Your task to perform on an android device: Do I have any events today? Image 0: 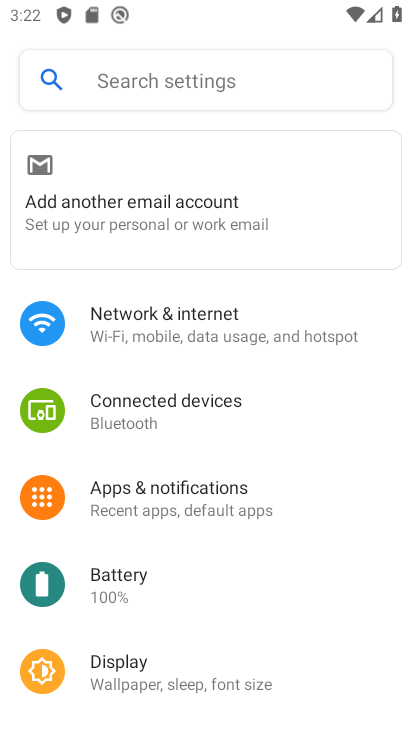
Step 0: press back button
Your task to perform on an android device: Do I have any events today? Image 1: 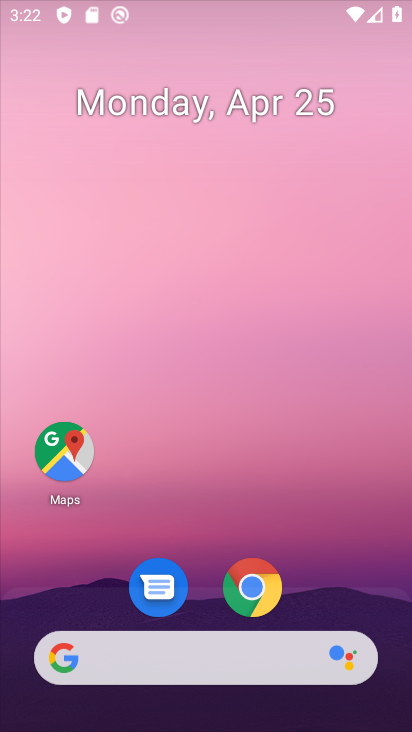
Step 1: drag from (148, 647) to (267, 22)
Your task to perform on an android device: Do I have any events today? Image 2: 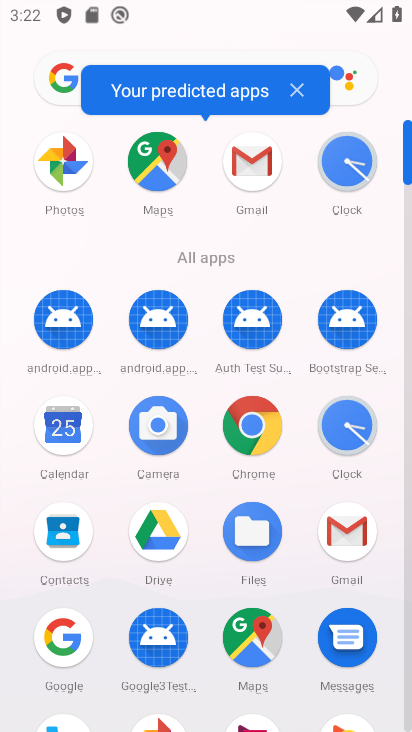
Step 2: click (53, 449)
Your task to perform on an android device: Do I have any events today? Image 3: 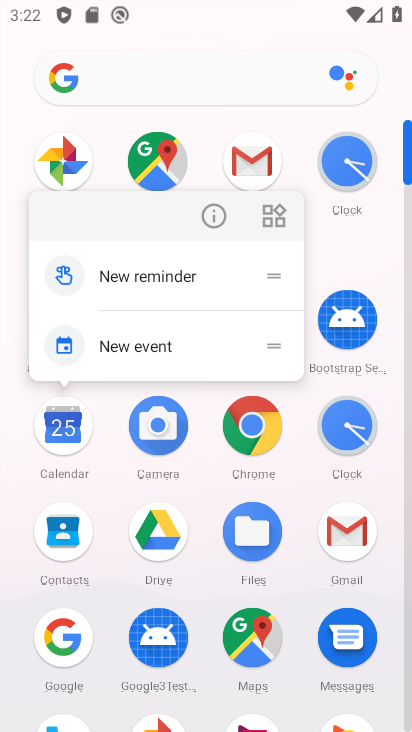
Step 3: click (58, 434)
Your task to perform on an android device: Do I have any events today? Image 4: 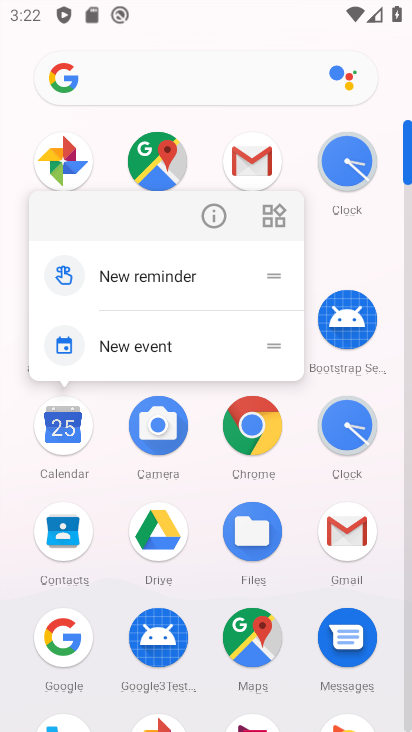
Step 4: click (63, 431)
Your task to perform on an android device: Do I have any events today? Image 5: 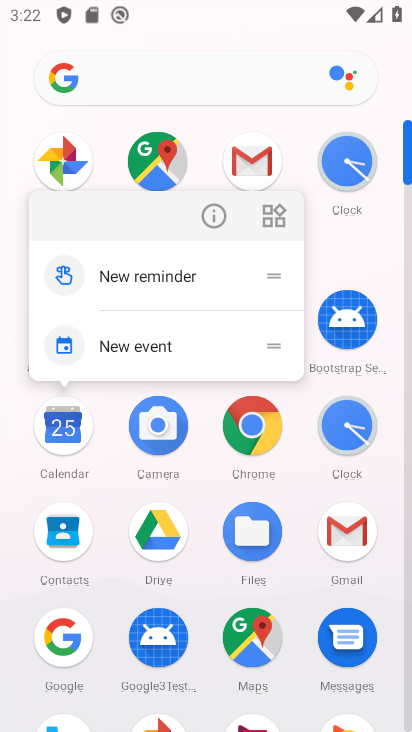
Step 5: click (63, 431)
Your task to perform on an android device: Do I have any events today? Image 6: 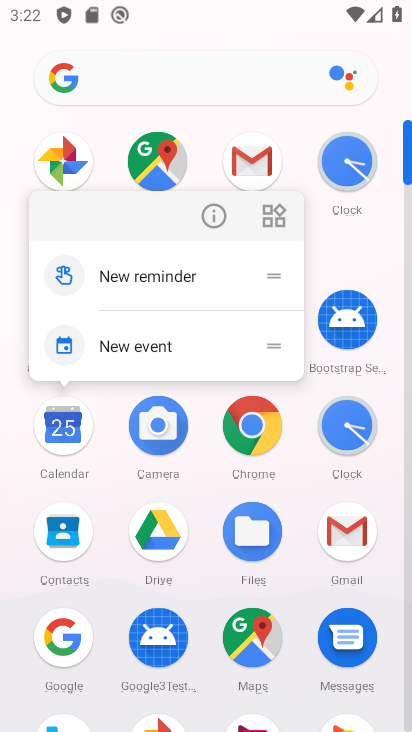
Step 6: click (63, 431)
Your task to perform on an android device: Do I have any events today? Image 7: 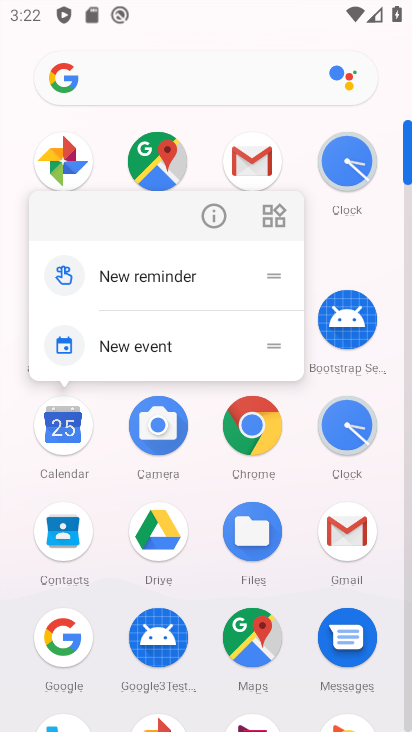
Step 7: click (63, 431)
Your task to perform on an android device: Do I have any events today? Image 8: 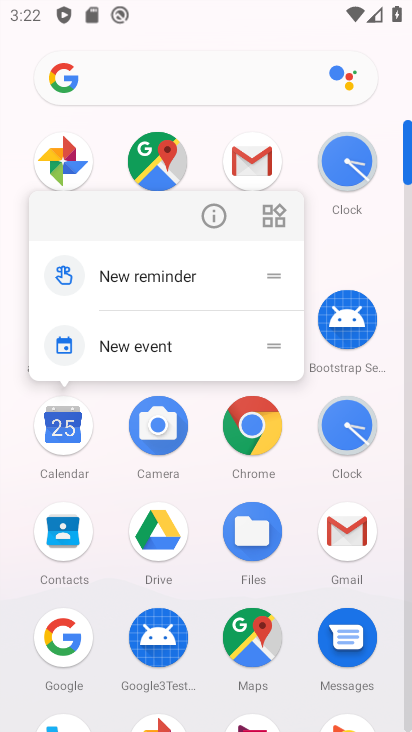
Step 8: click (64, 437)
Your task to perform on an android device: Do I have any events today? Image 9: 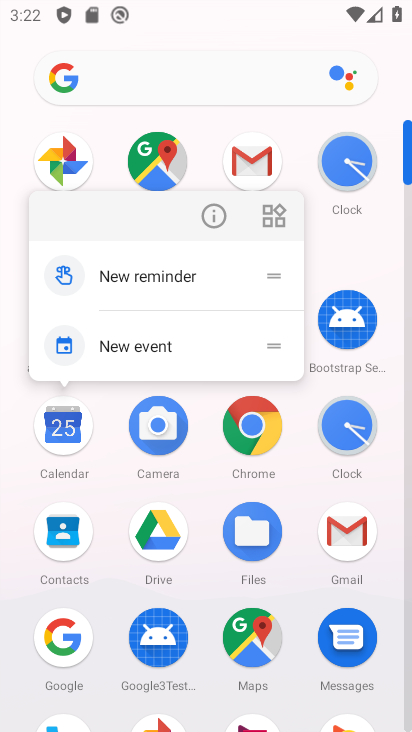
Step 9: click (58, 449)
Your task to perform on an android device: Do I have any events today? Image 10: 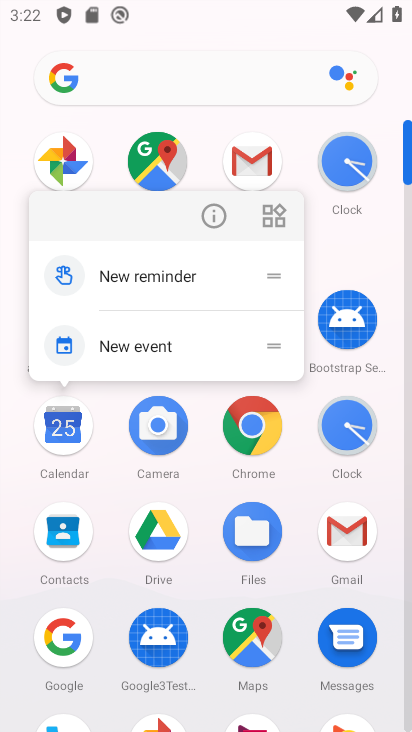
Step 10: click (72, 430)
Your task to perform on an android device: Do I have any events today? Image 11: 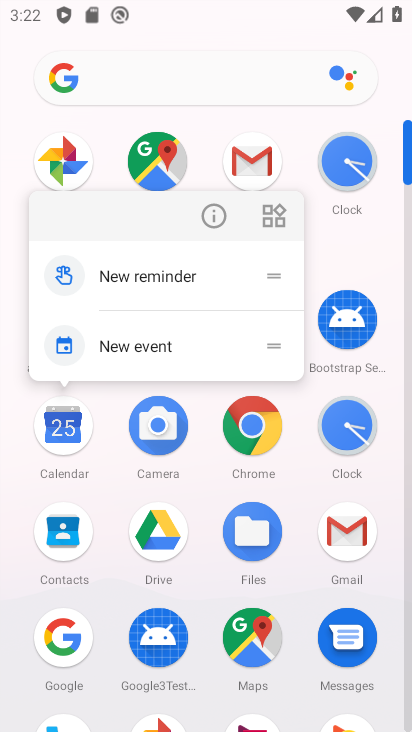
Step 11: click (72, 430)
Your task to perform on an android device: Do I have any events today? Image 12: 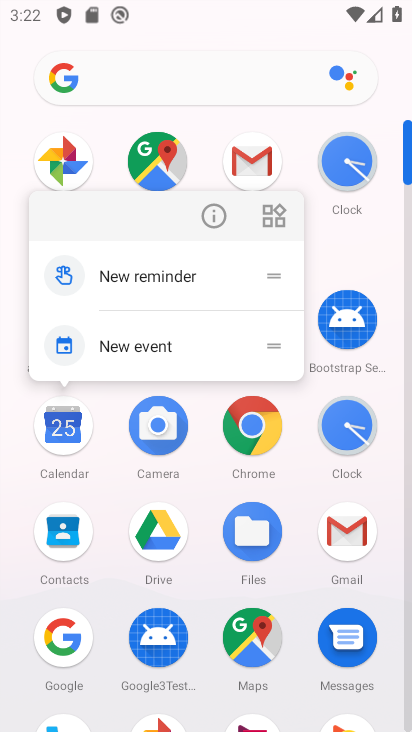
Step 12: click (72, 430)
Your task to perform on an android device: Do I have any events today? Image 13: 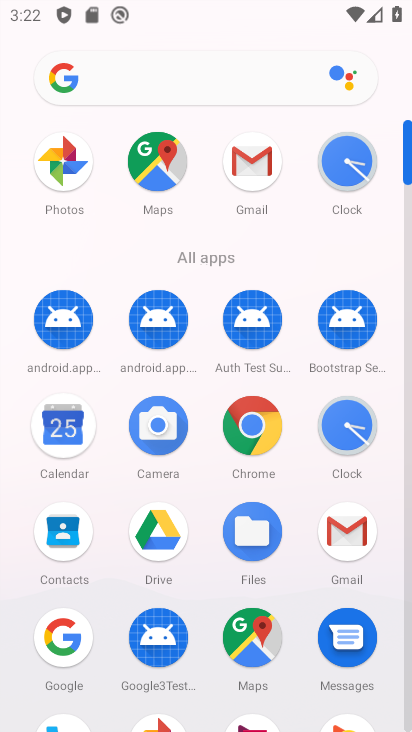
Step 13: click (72, 430)
Your task to perform on an android device: Do I have any events today? Image 14: 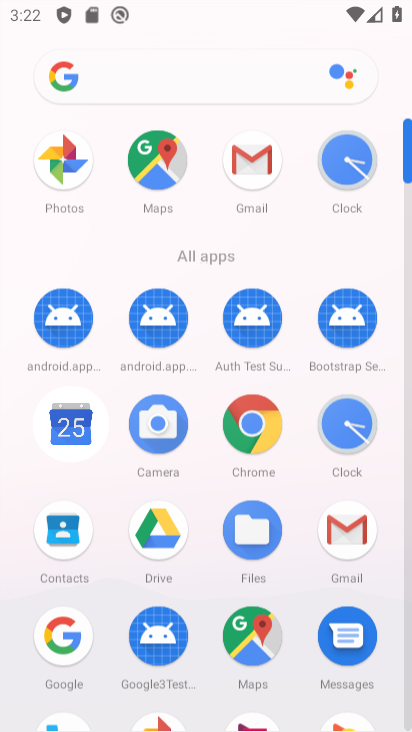
Step 14: click (72, 430)
Your task to perform on an android device: Do I have any events today? Image 15: 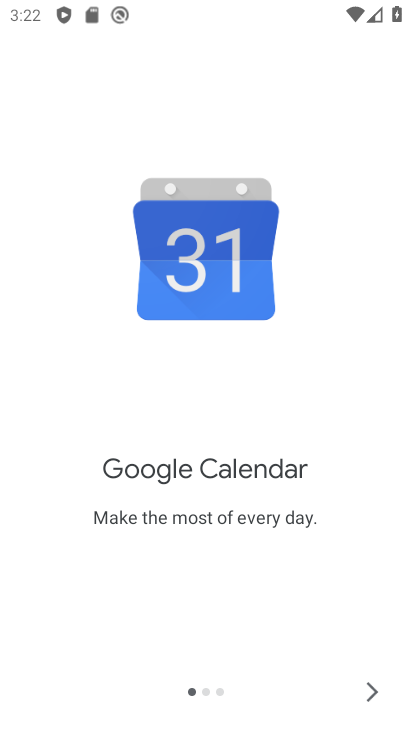
Step 15: click (373, 693)
Your task to perform on an android device: Do I have any events today? Image 16: 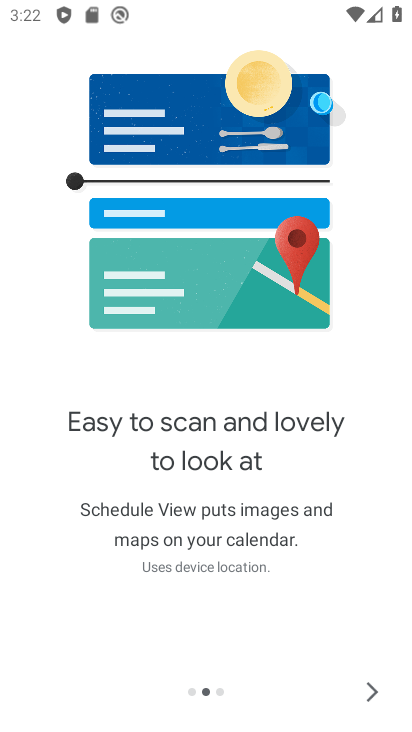
Step 16: click (373, 693)
Your task to perform on an android device: Do I have any events today? Image 17: 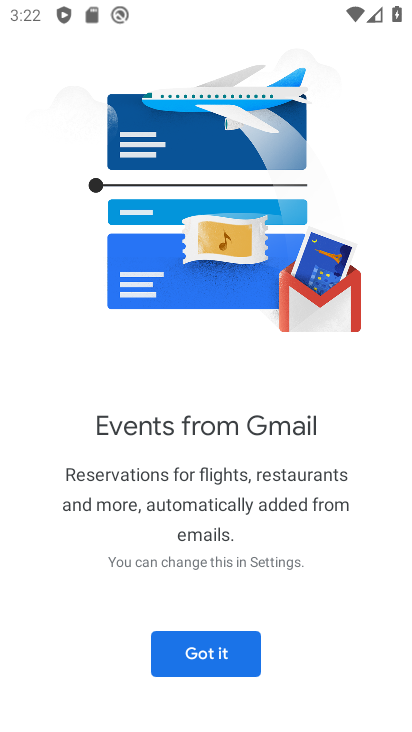
Step 17: click (203, 651)
Your task to perform on an android device: Do I have any events today? Image 18: 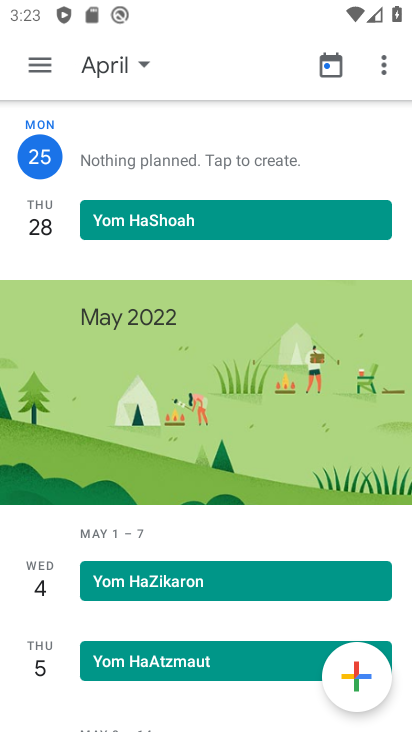
Step 18: task complete